Your task to perform on an android device: add a label to a message in the gmail app Image 0: 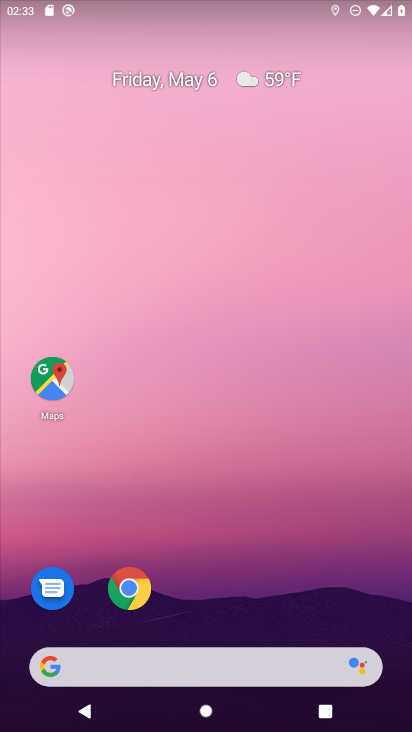
Step 0: drag from (209, 628) to (236, 5)
Your task to perform on an android device: add a label to a message in the gmail app Image 1: 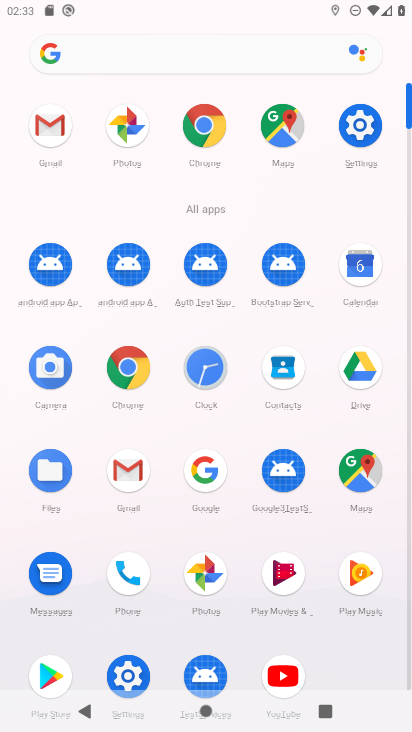
Step 1: click (127, 477)
Your task to perform on an android device: add a label to a message in the gmail app Image 2: 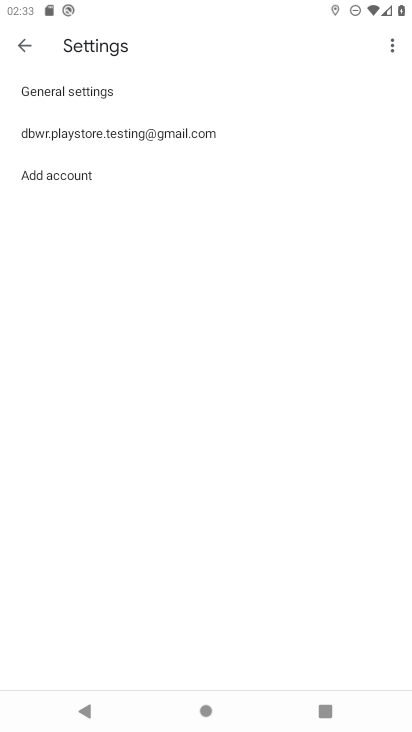
Step 2: click (33, 37)
Your task to perform on an android device: add a label to a message in the gmail app Image 3: 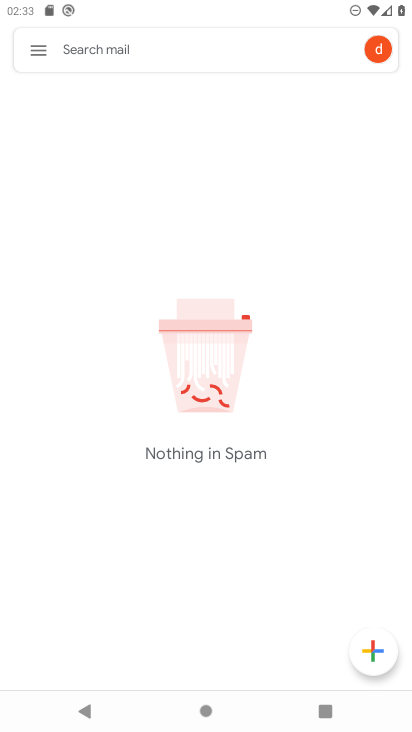
Step 3: click (32, 43)
Your task to perform on an android device: add a label to a message in the gmail app Image 4: 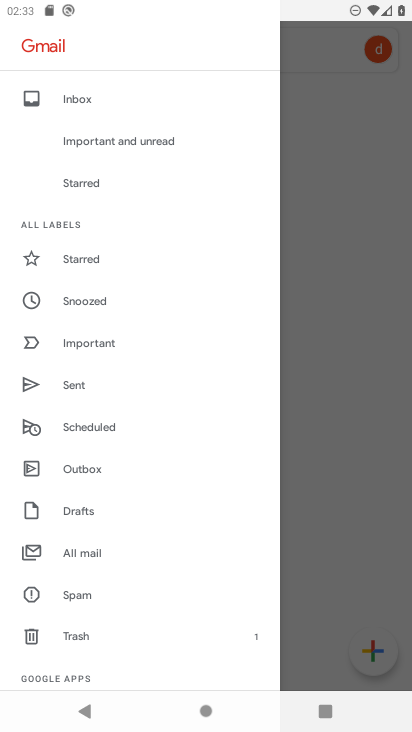
Step 4: click (98, 564)
Your task to perform on an android device: add a label to a message in the gmail app Image 5: 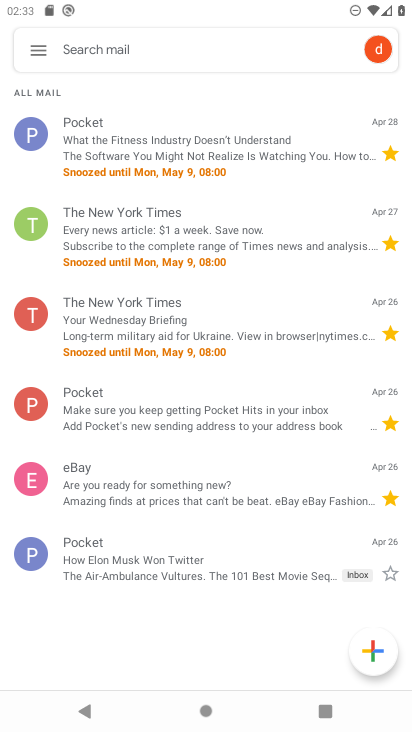
Step 5: click (13, 549)
Your task to perform on an android device: add a label to a message in the gmail app Image 6: 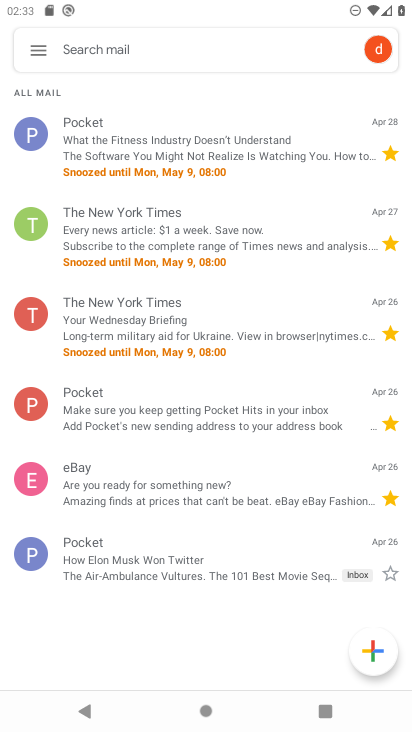
Step 6: click (40, 558)
Your task to perform on an android device: add a label to a message in the gmail app Image 7: 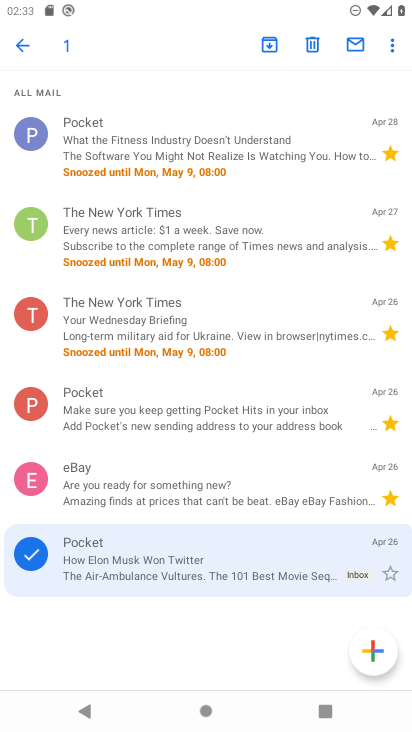
Step 7: click (402, 38)
Your task to perform on an android device: add a label to a message in the gmail app Image 8: 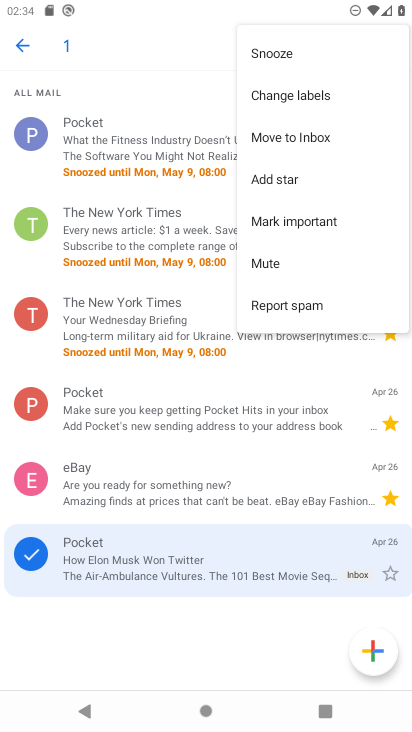
Step 8: click (301, 109)
Your task to perform on an android device: add a label to a message in the gmail app Image 9: 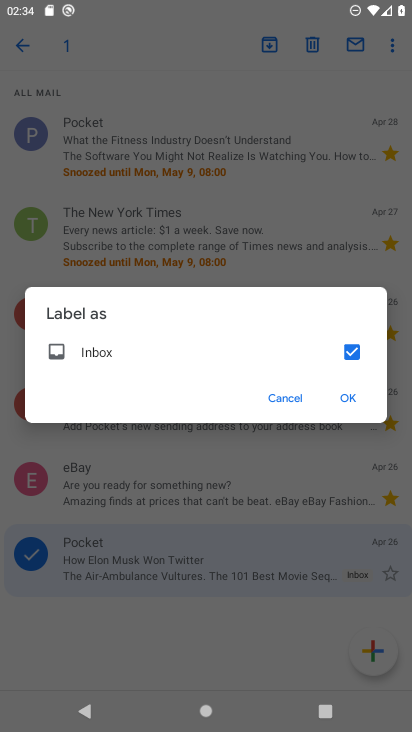
Step 9: click (361, 396)
Your task to perform on an android device: add a label to a message in the gmail app Image 10: 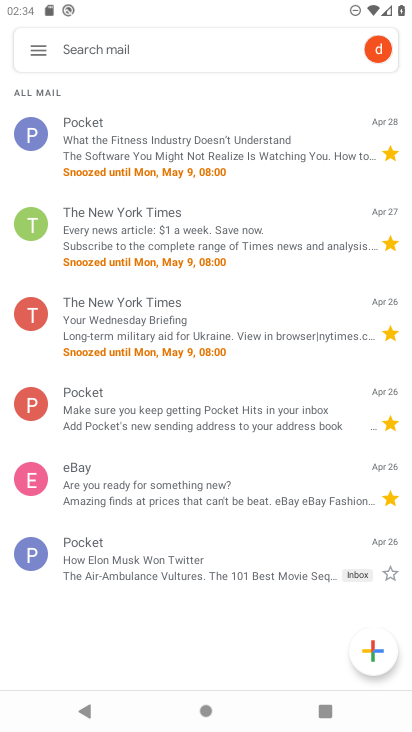
Step 10: task complete